Your task to perform on an android device: Go to settings Image 0: 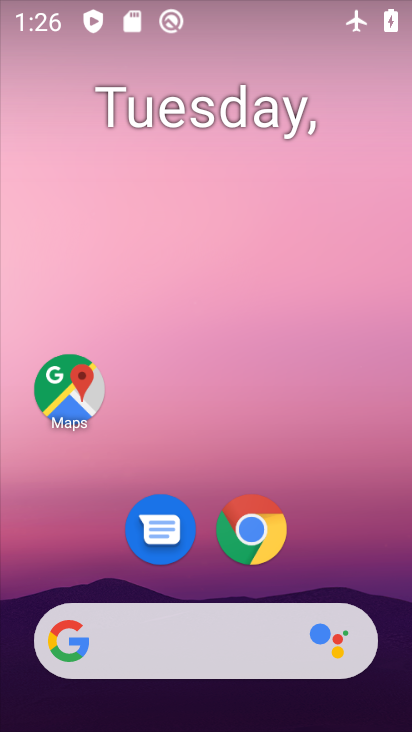
Step 0: drag from (379, 523) to (287, 173)
Your task to perform on an android device: Go to settings Image 1: 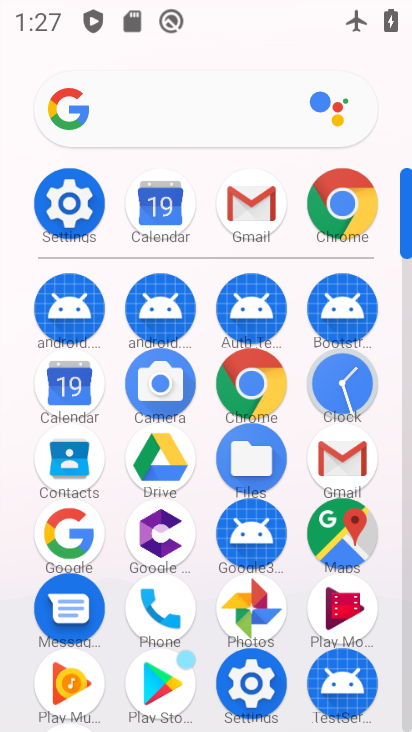
Step 1: click (77, 193)
Your task to perform on an android device: Go to settings Image 2: 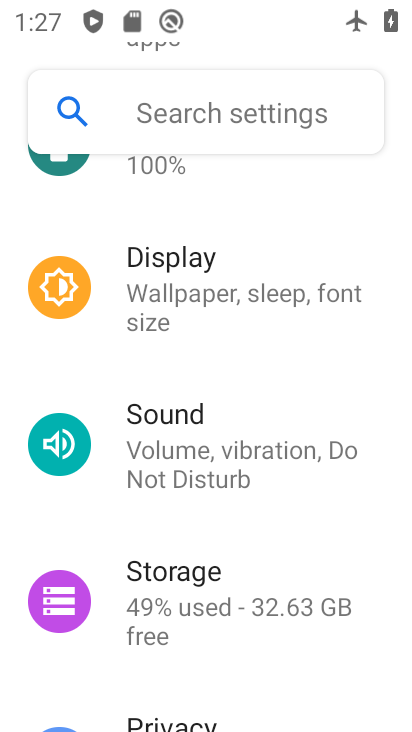
Step 2: task complete